Your task to perform on an android device: open app "Google Calendar" Image 0: 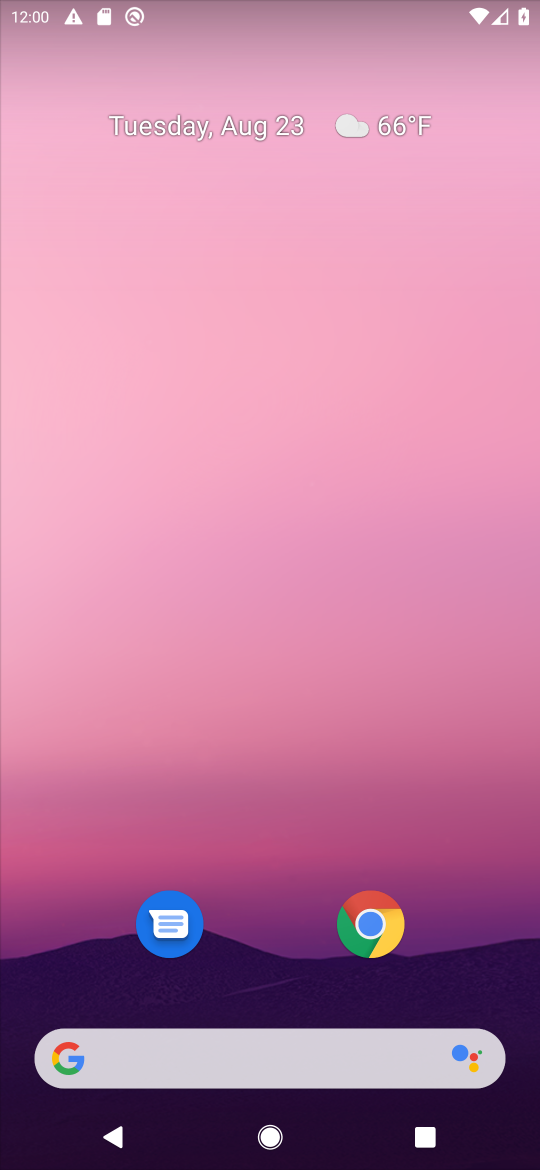
Step 0: press home button
Your task to perform on an android device: open app "Google Calendar" Image 1: 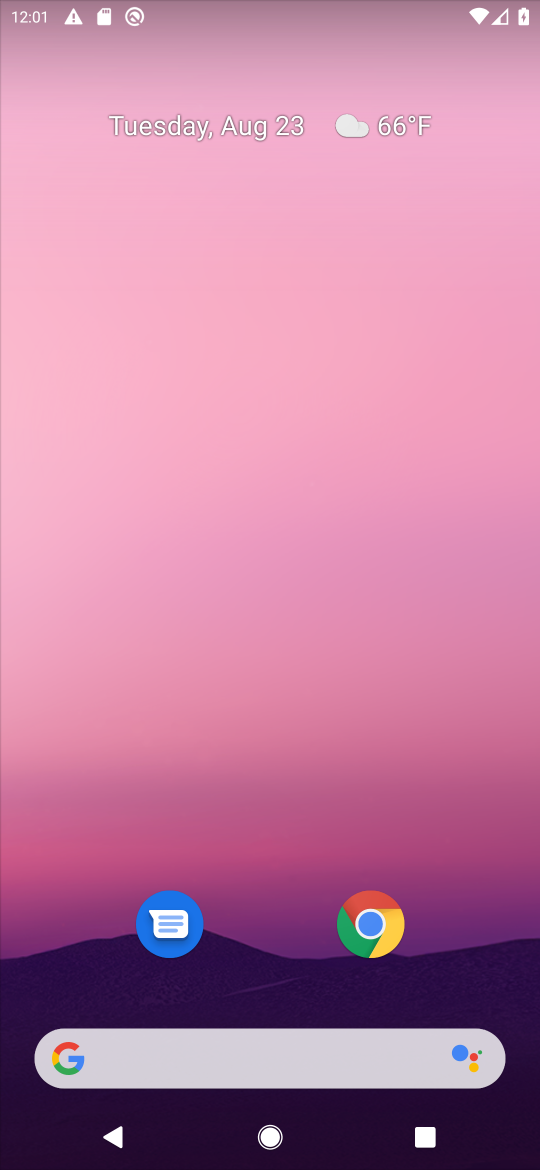
Step 1: drag from (489, 929) to (472, 103)
Your task to perform on an android device: open app "Google Calendar" Image 2: 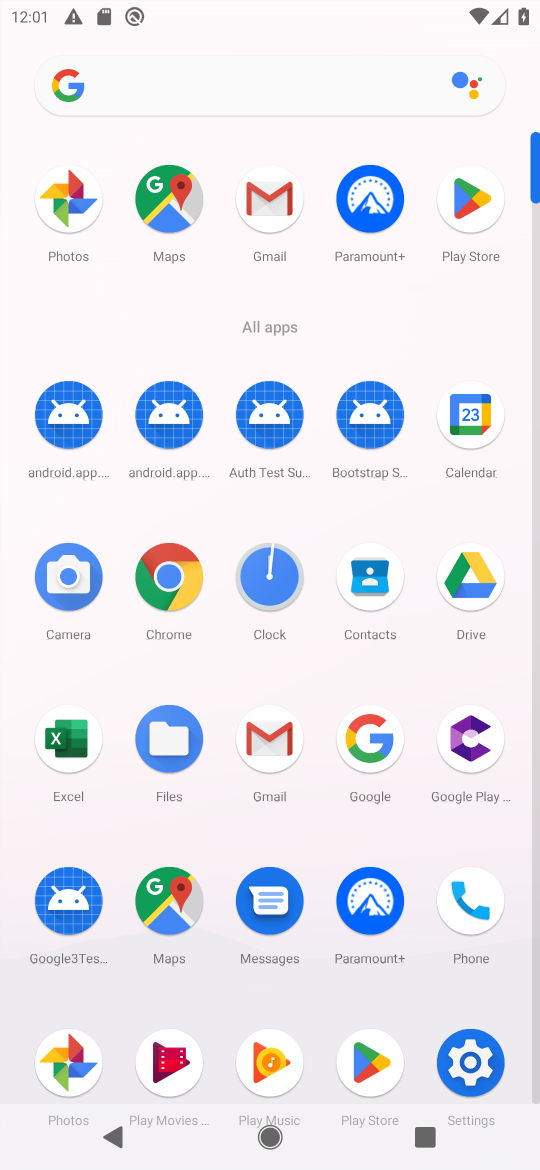
Step 2: click (463, 209)
Your task to perform on an android device: open app "Google Calendar" Image 3: 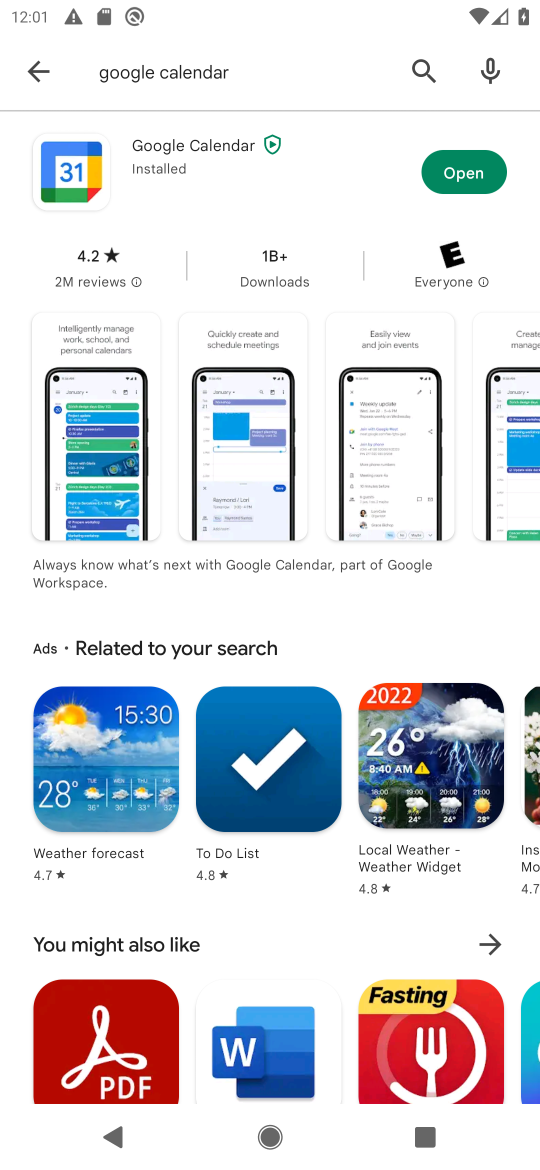
Step 3: click (463, 169)
Your task to perform on an android device: open app "Google Calendar" Image 4: 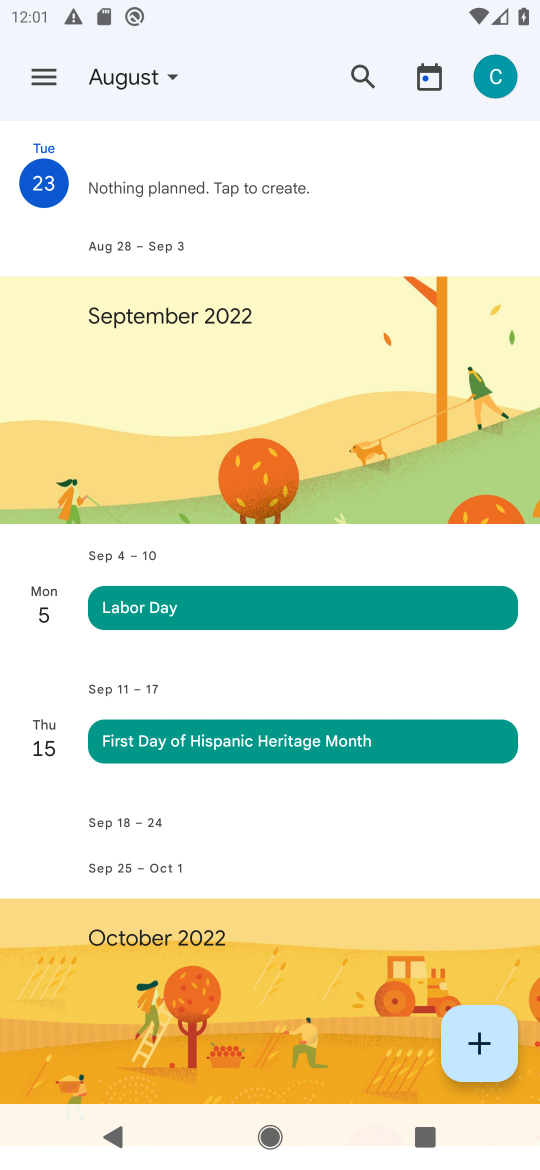
Step 4: task complete